Your task to perform on an android device: Go to privacy settings Image 0: 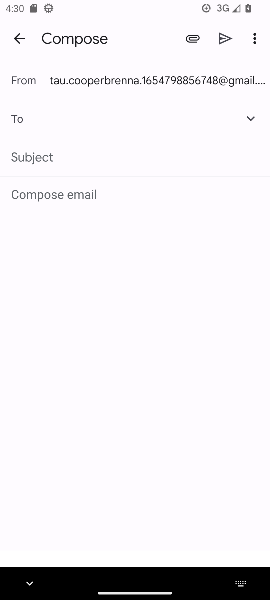
Step 0: click (24, 41)
Your task to perform on an android device: Go to privacy settings Image 1: 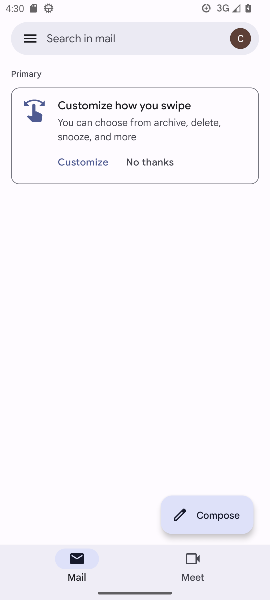
Step 1: press back button
Your task to perform on an android device: Go to privacy settings Image 2: 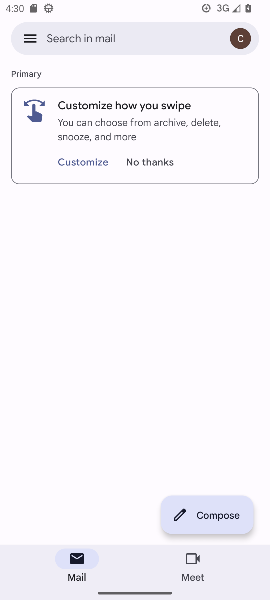
Step 2: press back button
Your task to perform on an android device: Go to privacy settings Image 3: 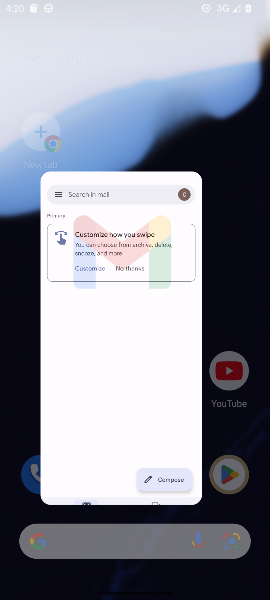
Step 3: press back button
Your task to perform on an android device: Go to privacy settings Image 4: 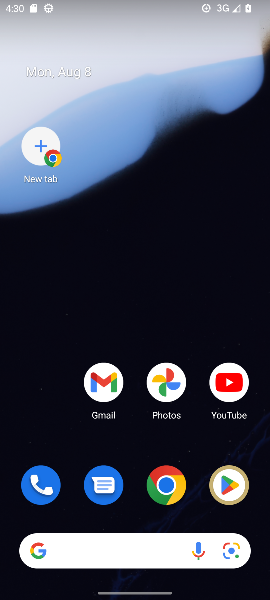
Step 4: press back button
Your task to perform on an android device: Go to privacy settings Image 5: 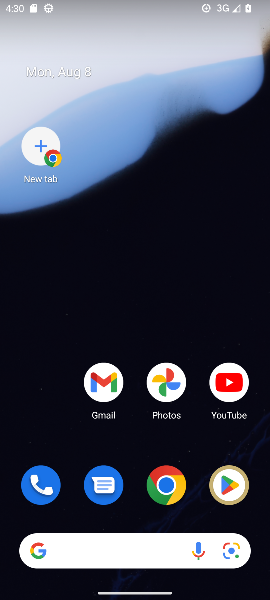
Step 5: drag from (173, 339) to (162, 32)
Your task to perform on an android device: Go to privacy settings Image 6: 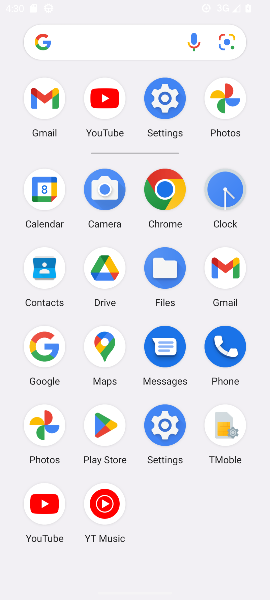
Step 6: drag from (188, 510) to (124, 81)
Your task to perform on an android device: Go to privacy settings Image 7: 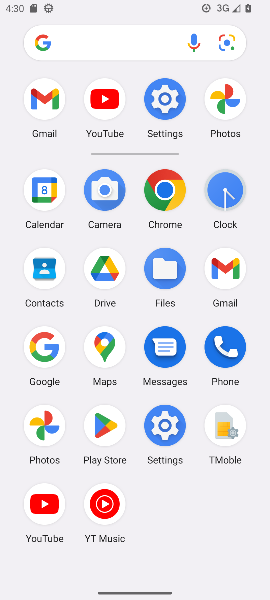
Step 7: click (155, 102)
Your task to perform on an android device: Go to privacy settings Image 8: 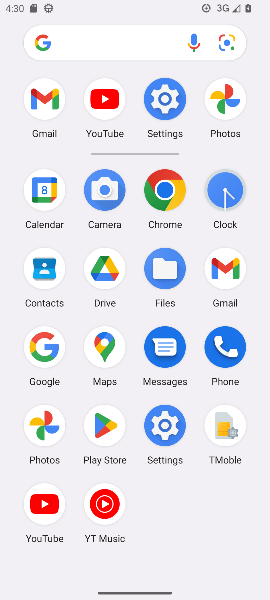
Step 8: click (155, 102)
Your task to perform on an android device: Go to privacy settings Image 9: 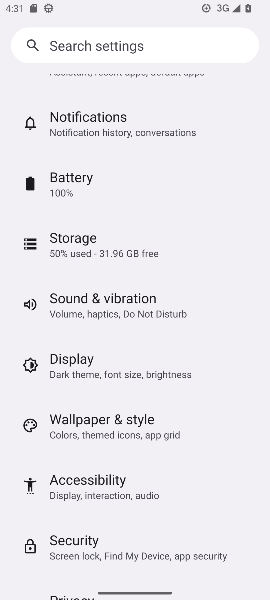
Step 9: drag from (86, 503) to (23, 169)
Your task to perform on an android device: Go to privacy settings Image 10: 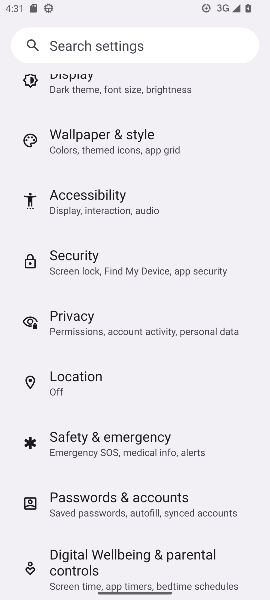
Step 10: drag from (82, 449) to (87, 197)
Your task to perform on an android device: Go to privacy settings Image 11: 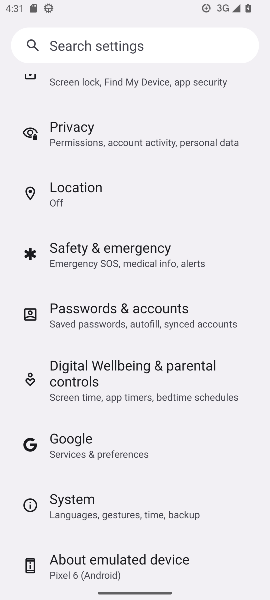
Step 11: click (54, 125)
Your task to perform on an android device: Go to privacy settings Image 12: 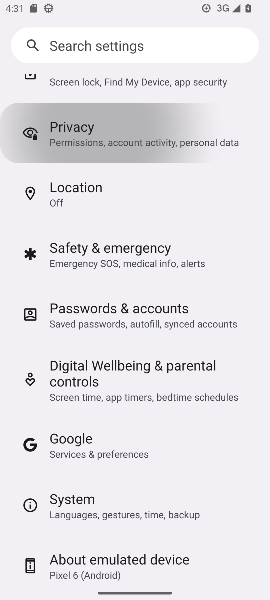
Step 12: click (58, 125)
Your task to perform on an android device: Go to privacy settings Image 13: 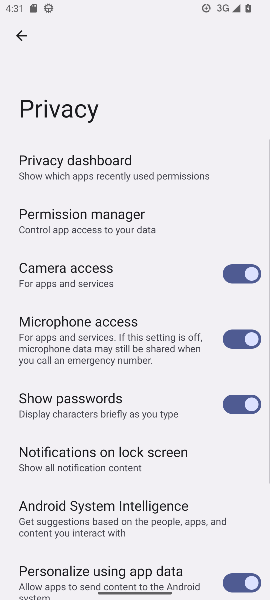
Step 13: click (66, 129)
Your task to perform on an android device: Go to privacy settings Image 14: 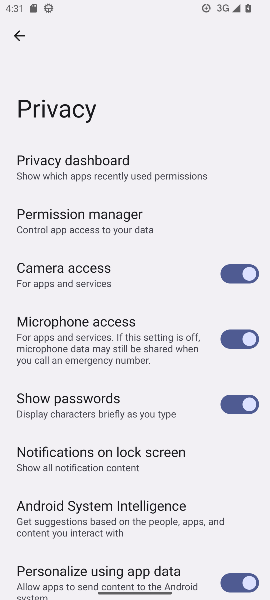
Step 14: task complete